Your task to perform on an android device: Turn off the flashlight Image 0: 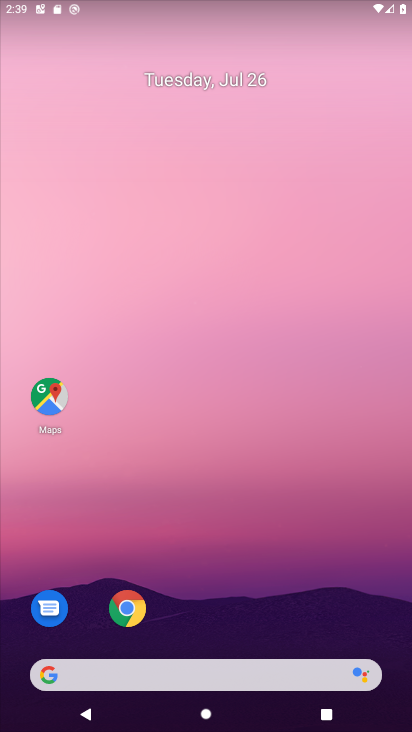
Step 0: drag from (309, 9) to (293, 656)
Your task to perform on an android device: Turn off the flashlight Image 1: 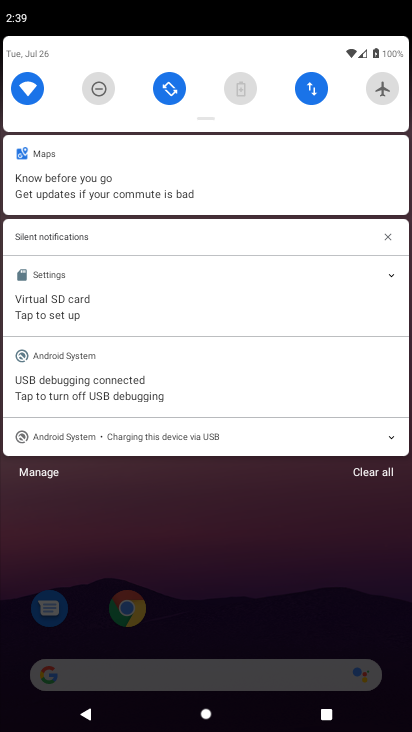
Step 1: drag from (247, 115) to (272, 468)
Your task to perform on an android device: Turn off the flashlight Image 2: 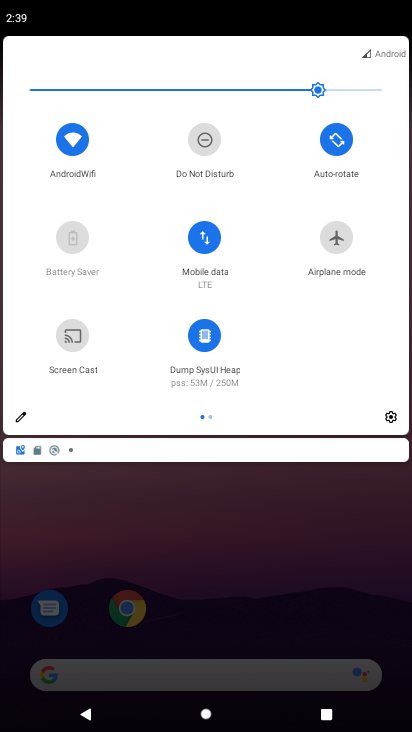
Step 2: click (16, 414)
Your task to perform on an android device: Turn off the flashlight Image 3: 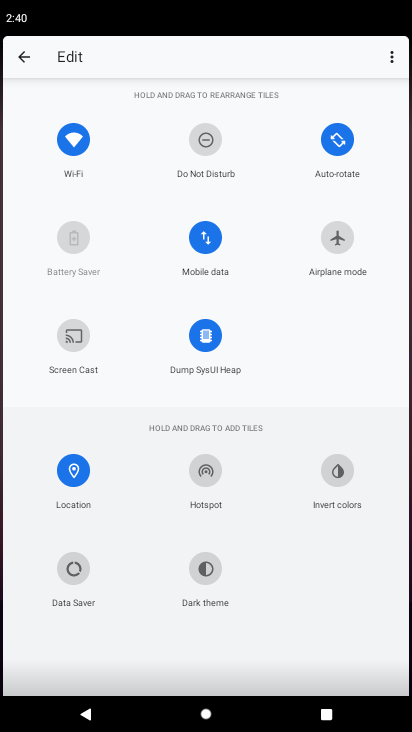
Step 3: task complete